Your task to perform on an android device: turn off translation in the chrome app Image 0: 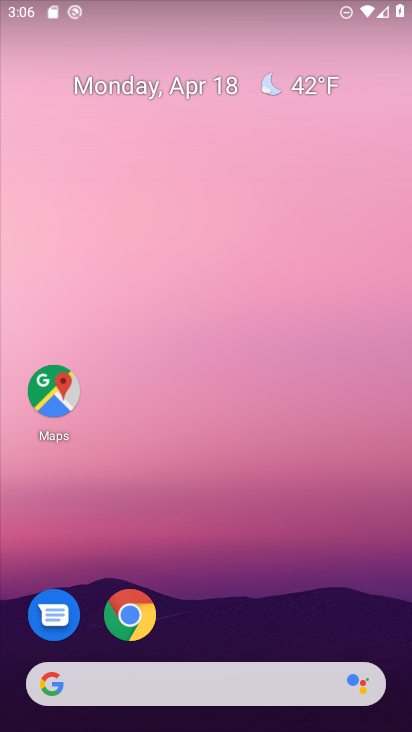
Step 0: click (146, 623)
Your task to perform on an android device: turn off translation in the chrome app Image 1: 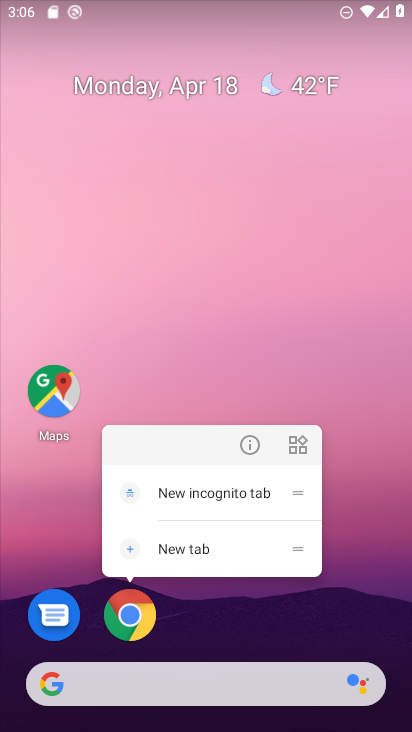
Step 1: click (147, 617)
Your task to perform on an android device: turn off translation in the chrome app Image 2: 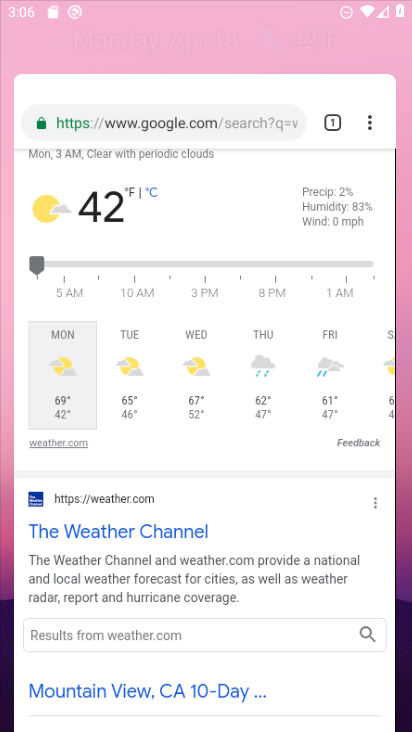
Step 2: click (145, 613)
Your task to perform on an android device: turn off translation in the chrome app Image 3: 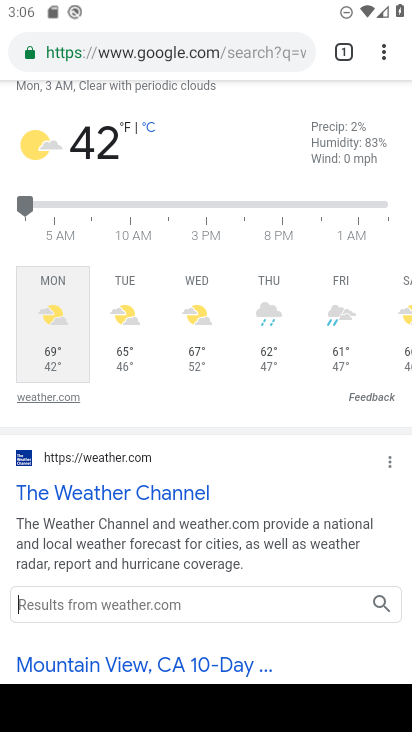
Step 3: drag from (335, 187) to (361, 513)
Your task to perform on an android device: turn off translation in the chrome app Image 4: 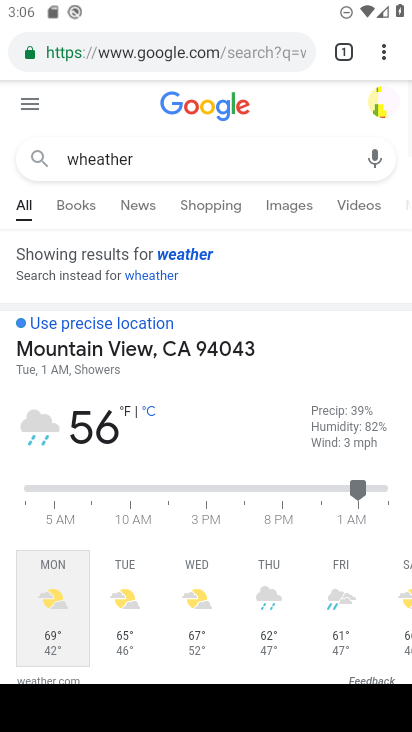
Step 4: click (382, 45)
Your task to perform on an android device: turn off translation in the chrome app Image 5: 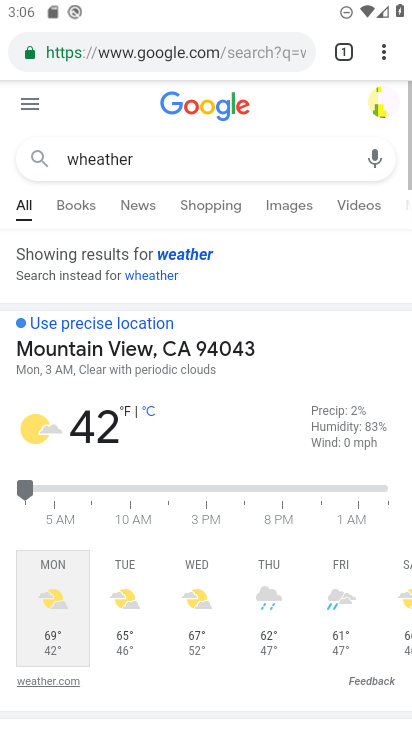
Step 5: click (381, 46)
Your task to perform on an android device: turn off translation in the chrome app Image 6: 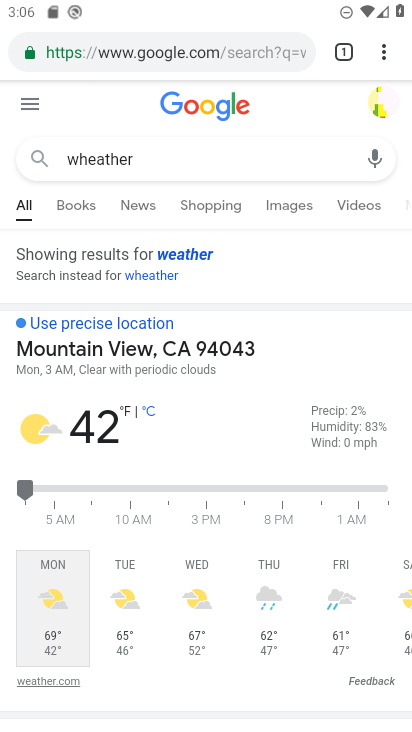
Step 6: click (381, 46)
Your task to perform on an android device: turn off translation in the chrome app Image 7: 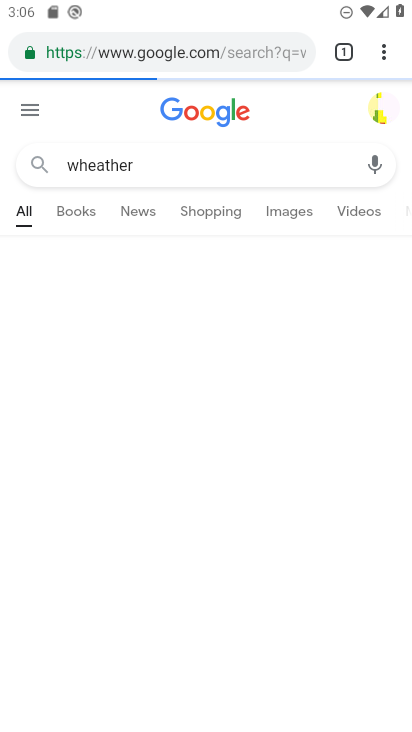
Step 7: click (381, 46)
Your task to perform on an android device: turn off translation in the chrome app Image 8: 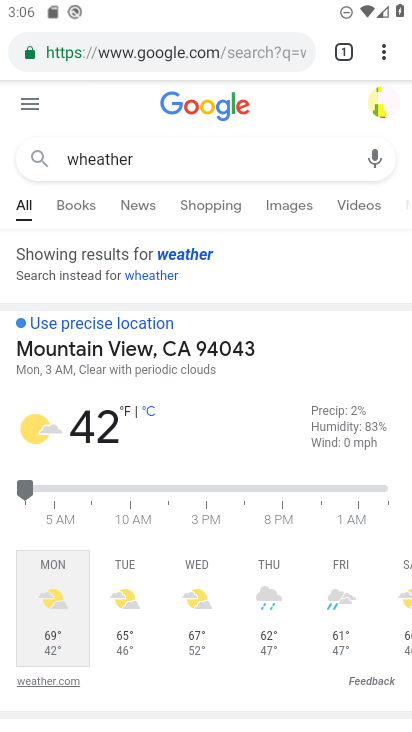
Step 8: click (381, 46)
Your task to perform on an android device: turn off translation in the chrome app Image 9: 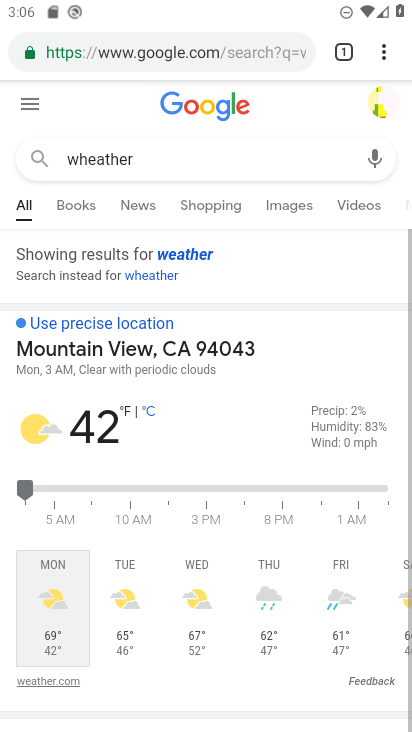
Step 9: click (381, 46)
Your task to perform on an android device: turn off translation in the chrome app Image 10: 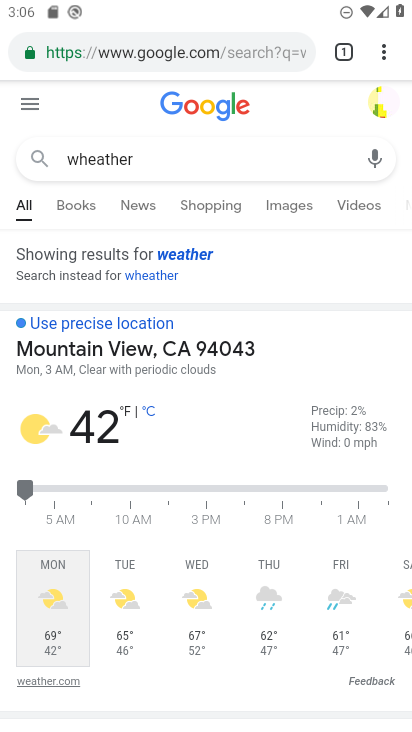
Step 10: click (381, 46)
Your task to perform on an android device: turn off translation in the chrome app Image 11: 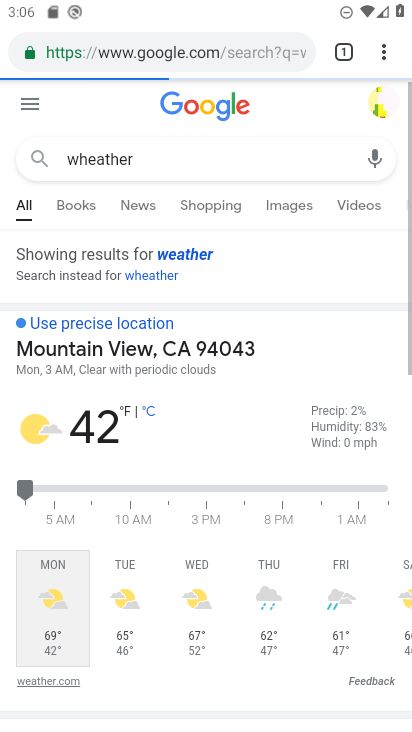
Step 11: click (381, 46)
Your task to perform on an android device: turn off translation in the chrome app Image 12: 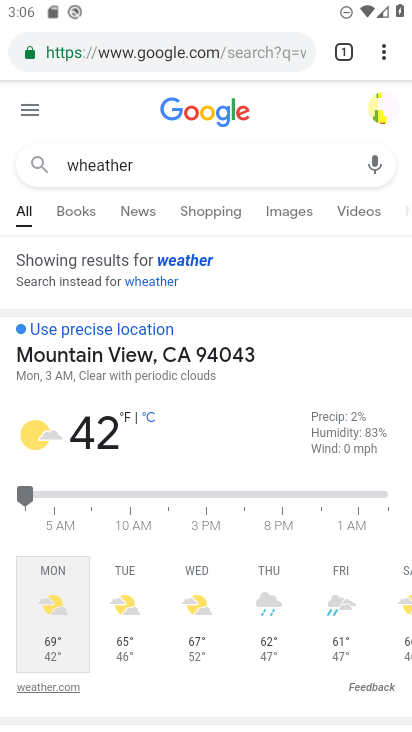
Step 12: click (381, 57)
Your task to perform on an android device: turn off translation in the chrome app Image 13: 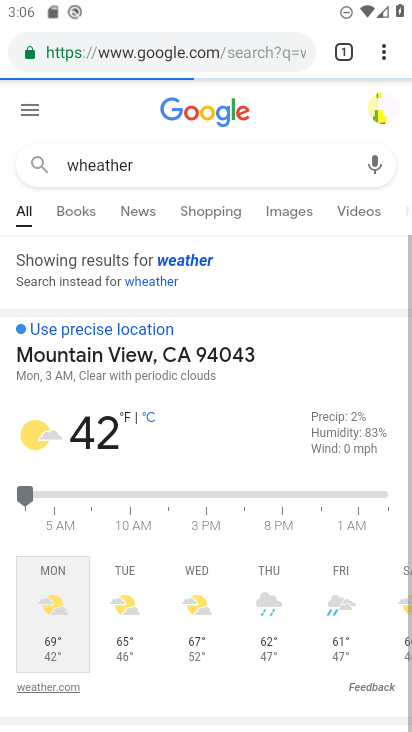
Step 13: click (381, 58)
Your task to perform on an android device: turn off translation in the chrome app Image 14: 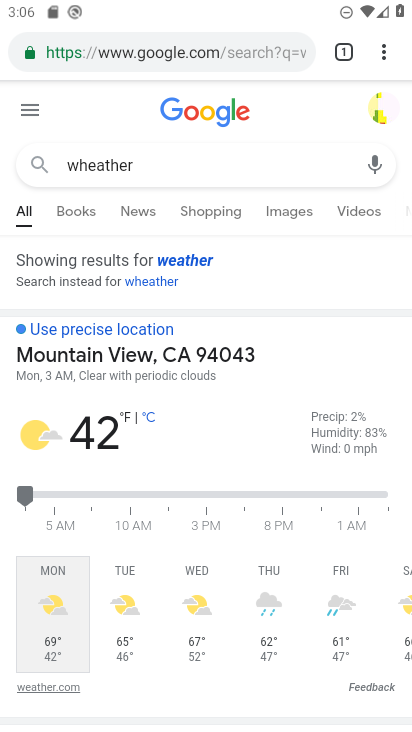
Step 14: click (381, 58)
Your task to perform on an android device: turn off translation in the chrome app Image 15: 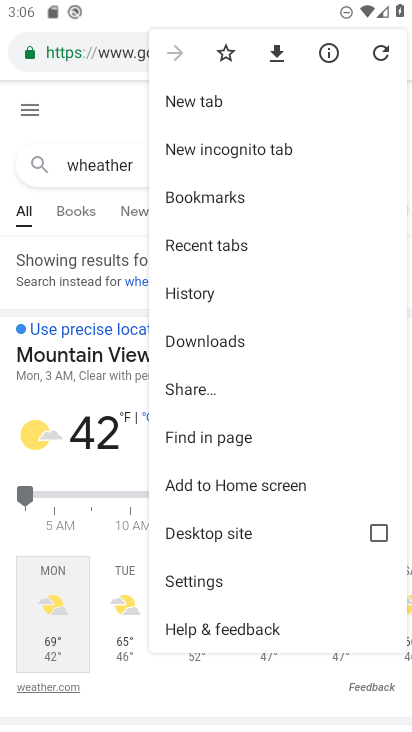
Step 15: click (302, 573)
Your task to perform on an android device: turn off translation in the chrome app Image 16: 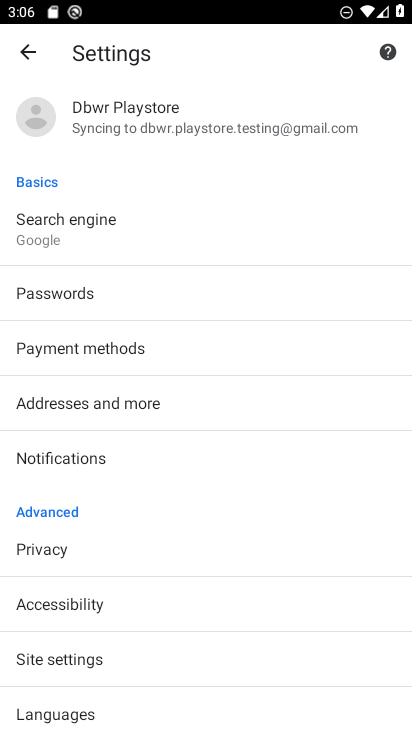
Step 16: drag from (217, 602) to (241, 277)
Your task to perform on an android device: turn off translation in the chrome app Image 17: 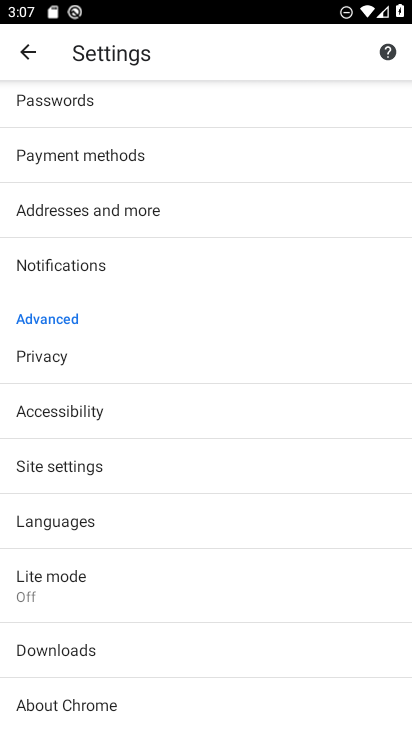
Step 17: click (174, 527)
Your task to perform on an android device: turn off translation in the chrome app Image 18: 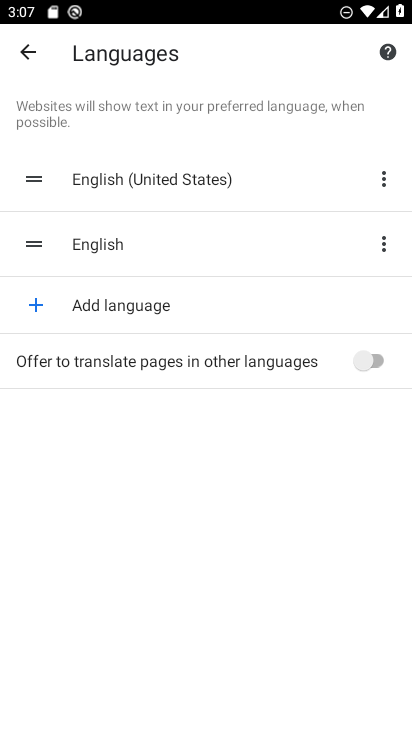
Step 18: task complete